Your task to perform on an android device: Go to internet settings Image 0: 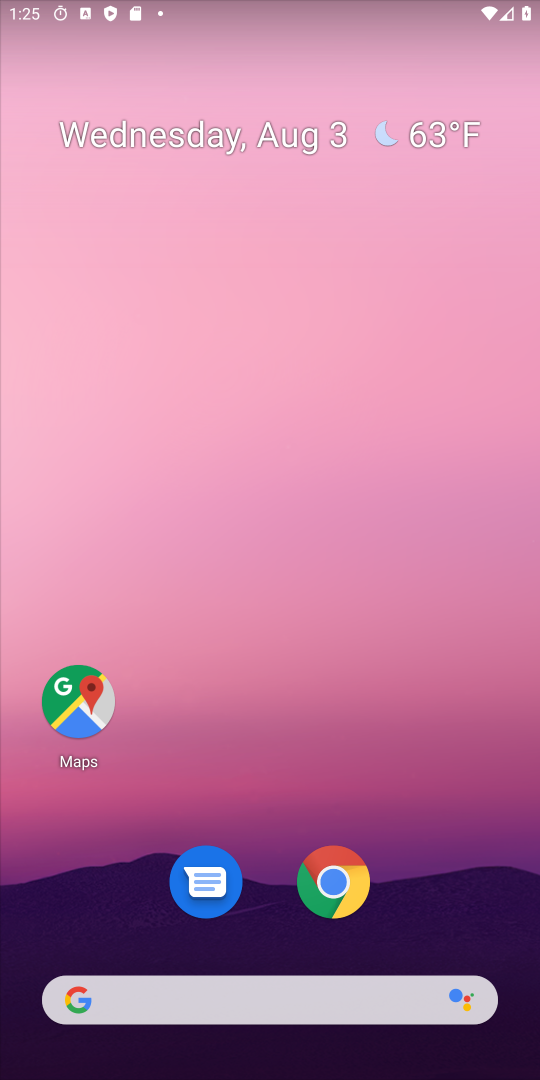
Step 0: drag from (270, 655) to (315, 1)
Your task to perform on an android device: Go to internet settings Image 1: 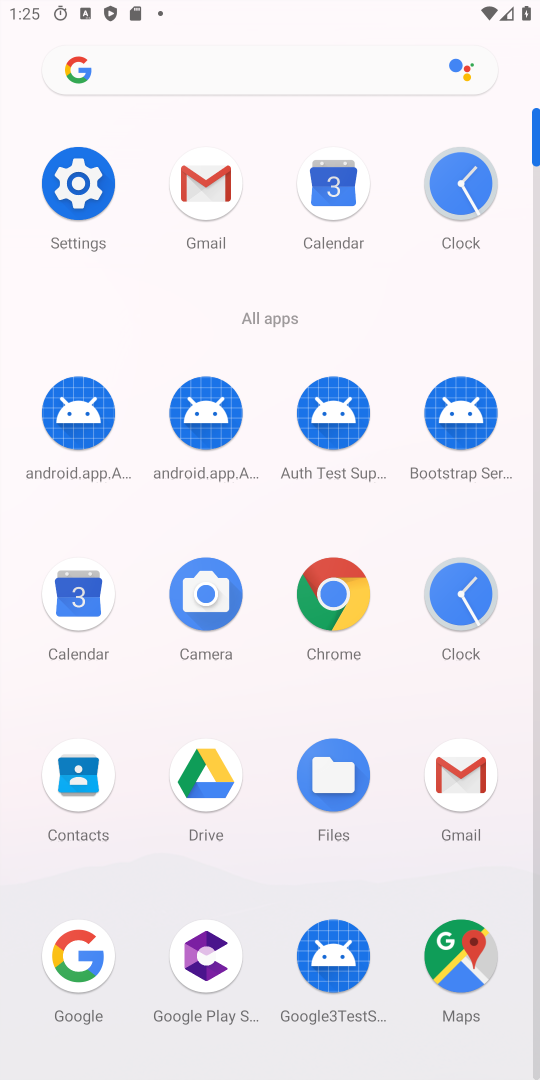
Step 1: click (58, 196)
Your task to perform on an android device: Go to internet settings Image 2: 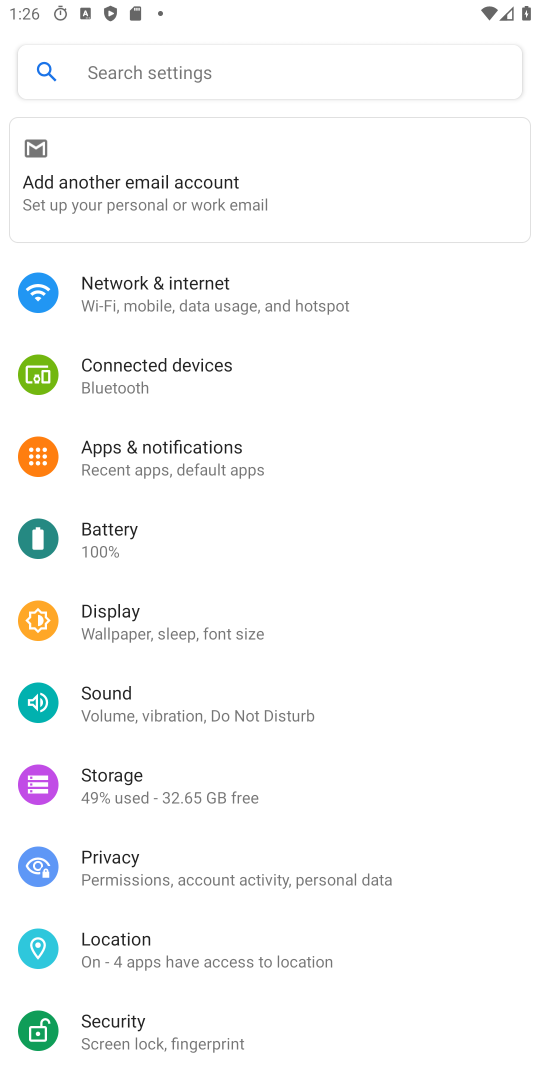
Step 2: click (229, 301)
Your task to perform on an android device: Go to internet settings Image 3: 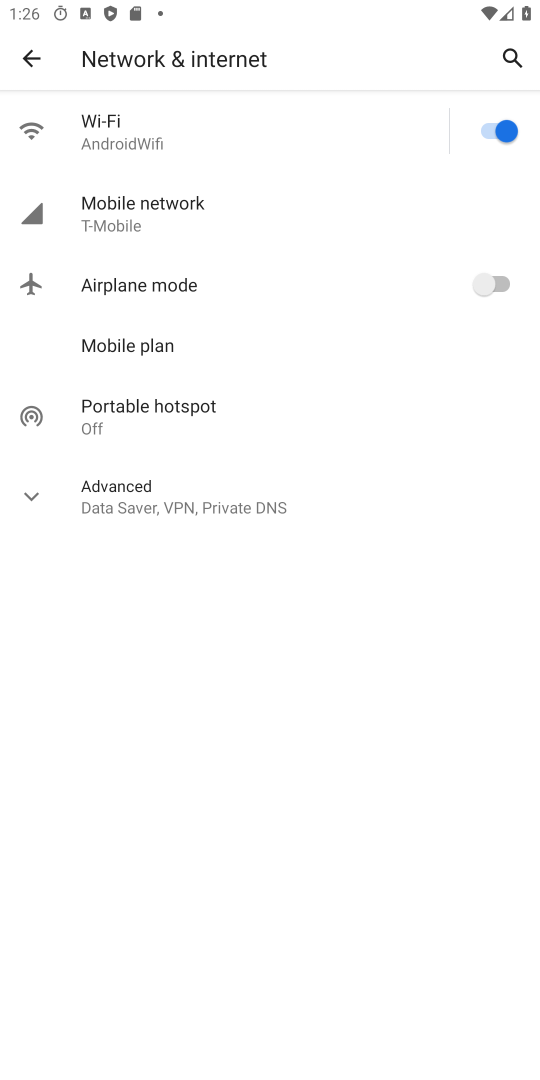
Step 3: click (217, 225)
Your task to perform on an android device: Go to internet settings Image 4: 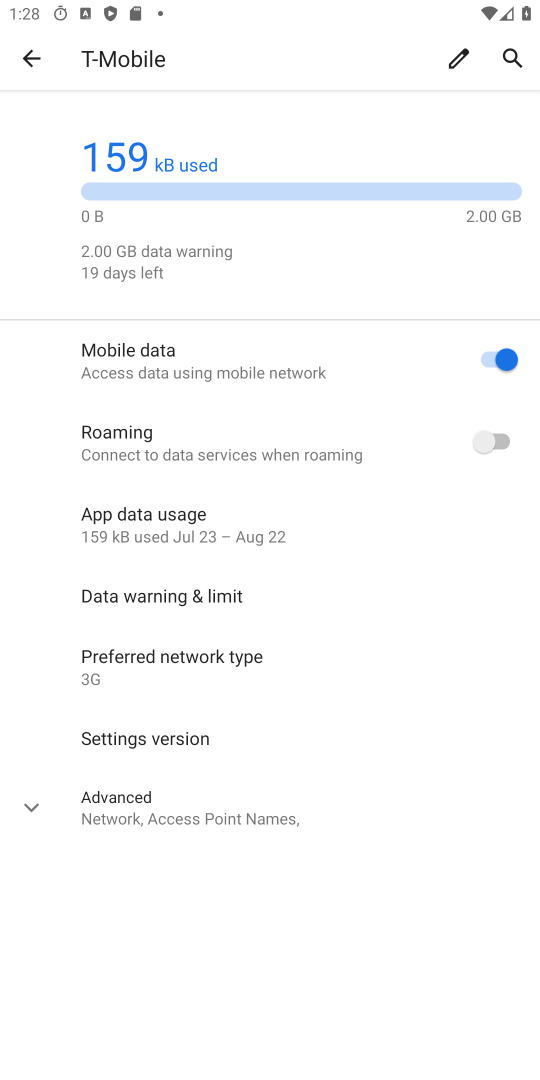
Step 4: task complete